Your task to perform on an android device: add a label to a message in the gmail app Image 0: 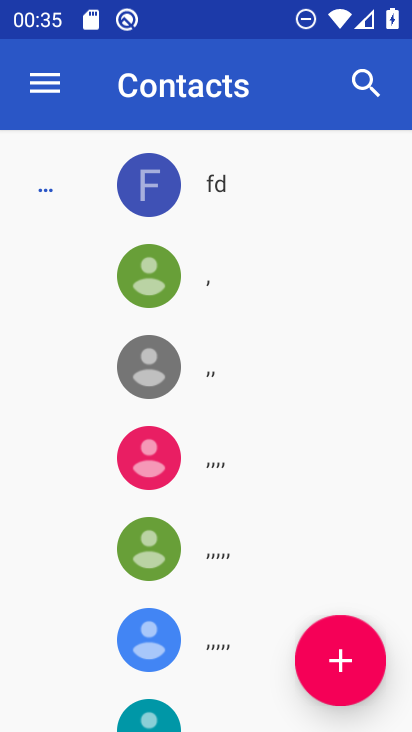
Step 0: press home button
Your task to perform on an android device: add a label to a message in the gmail app Image 1: 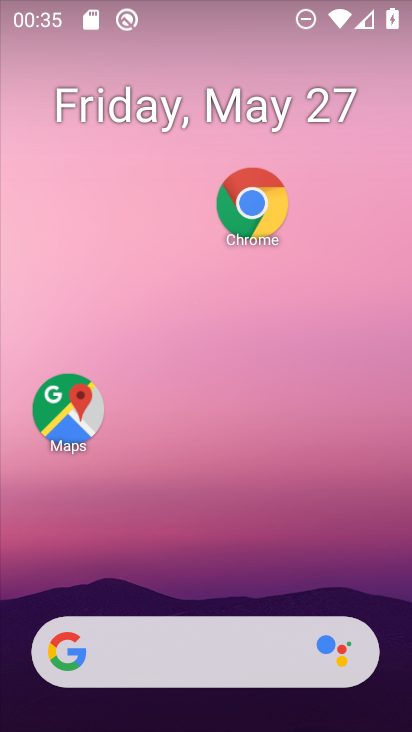
Step 1: drag from (218, 552) to (178, 184)
Your task to perform on an android device: add a label to a message in the gmail app Image 2: 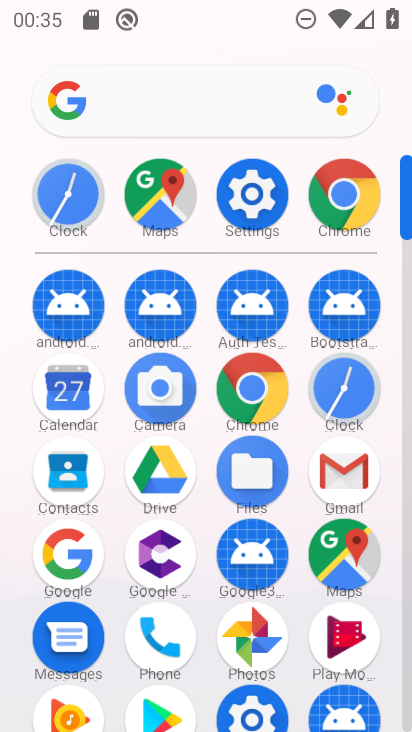
Step 2: click (339, 446)
Your task to perform on an android device: add a label to a message in the gmail app Image 3: 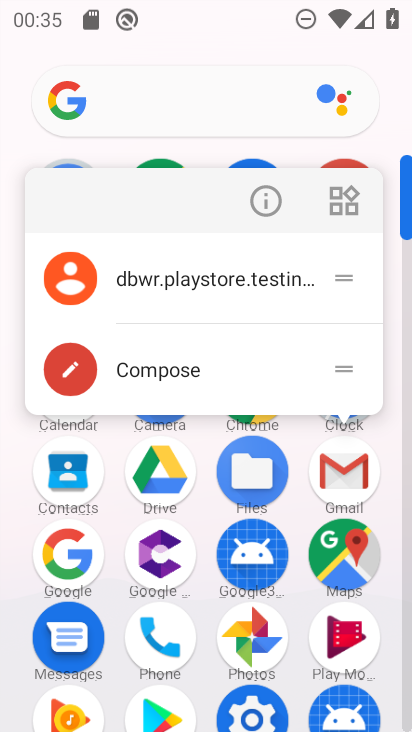
Step 3: click (273, 221)
Your task to perform on an android device: add a label to a message in the gmail app Image 4: 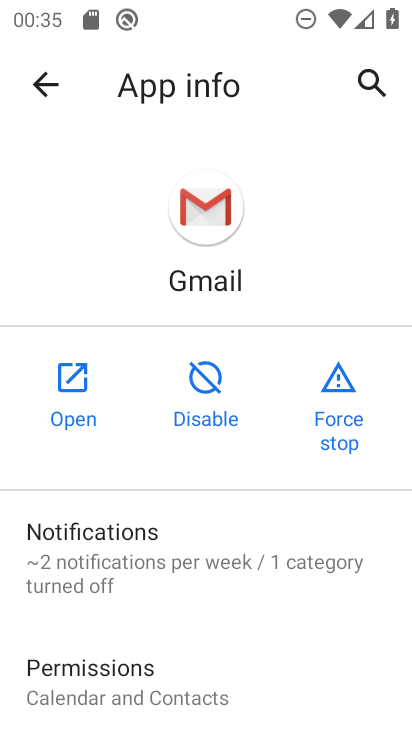
Step 4: click (87, 370)
Your task to perform on an android device: add a label to a message in the gmail app Image 5: 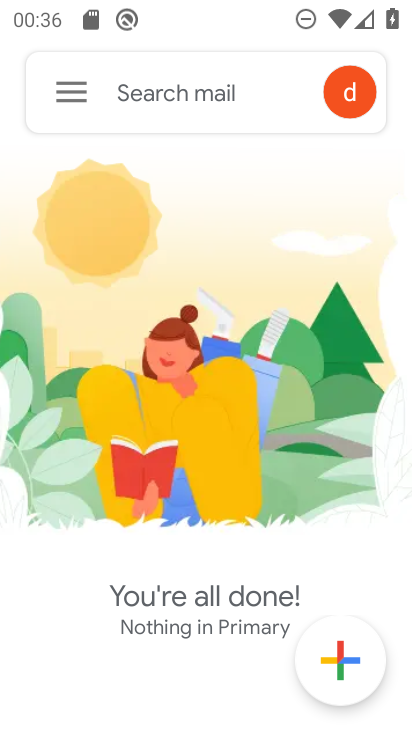
Step 5: click (69, 107)
Your task to perform on an android device: add a label to a message in the gmail app Image 6: 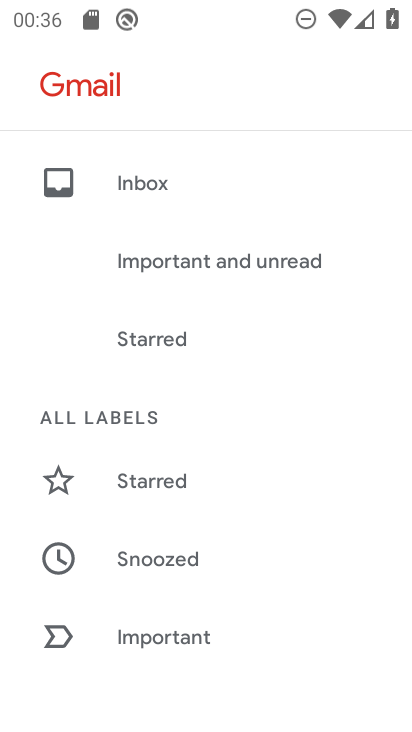
Step 6: task complete